Your task to perform on an android device: Open Chrome and go to the settings page Image 0: 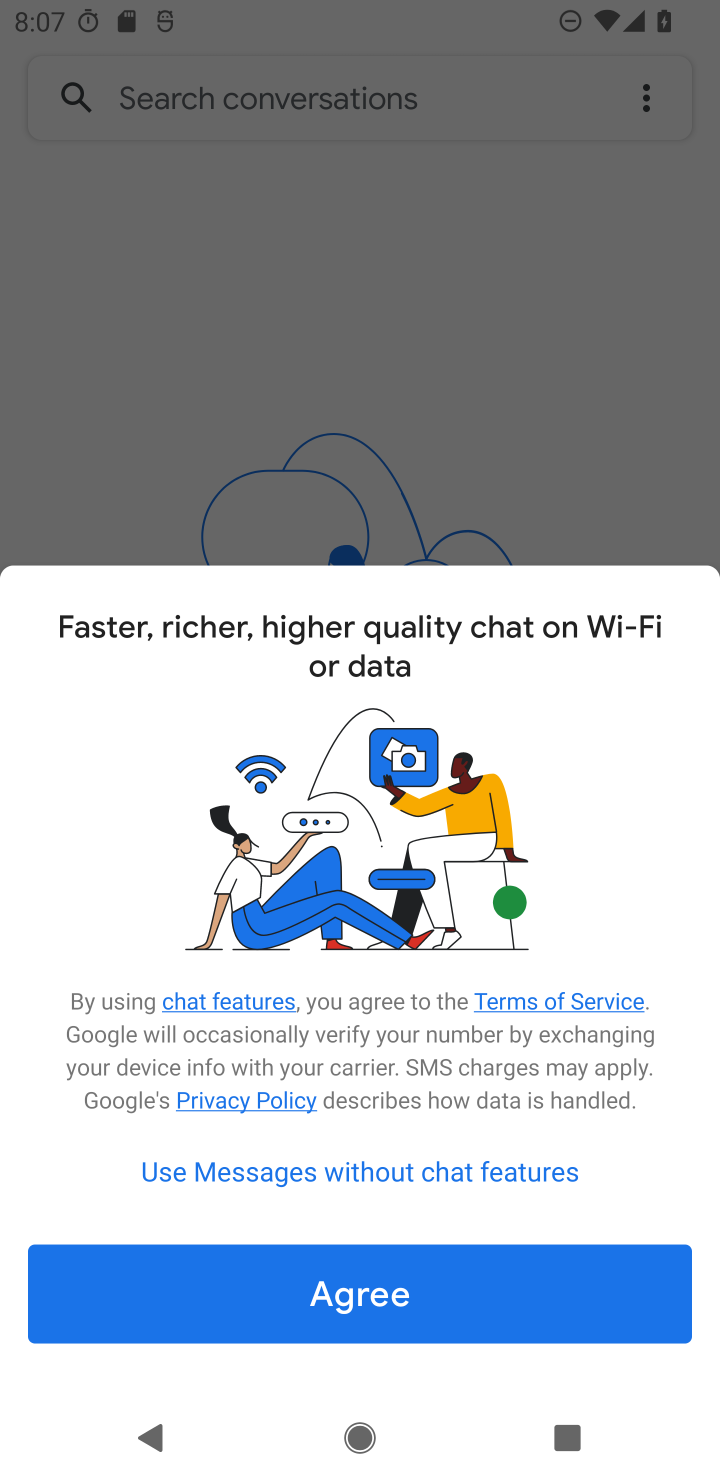
Step 0: press home button
Your task to perform on an android device: Open Chrome and go to the settings page Image 1: 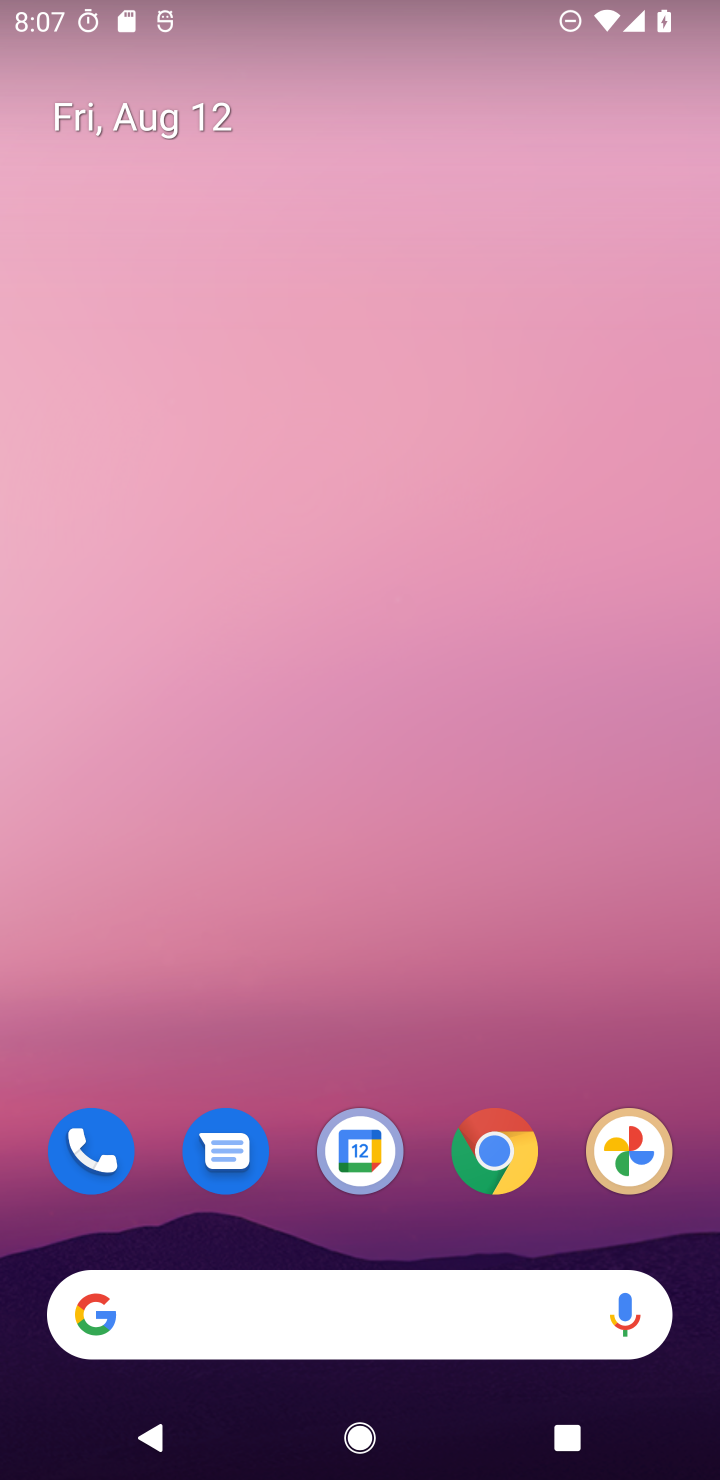
Step 1: drag from (519, 755) to (516, 0)
Your task to perform on an android device: Open Chrome and go to the settings page Image 2: 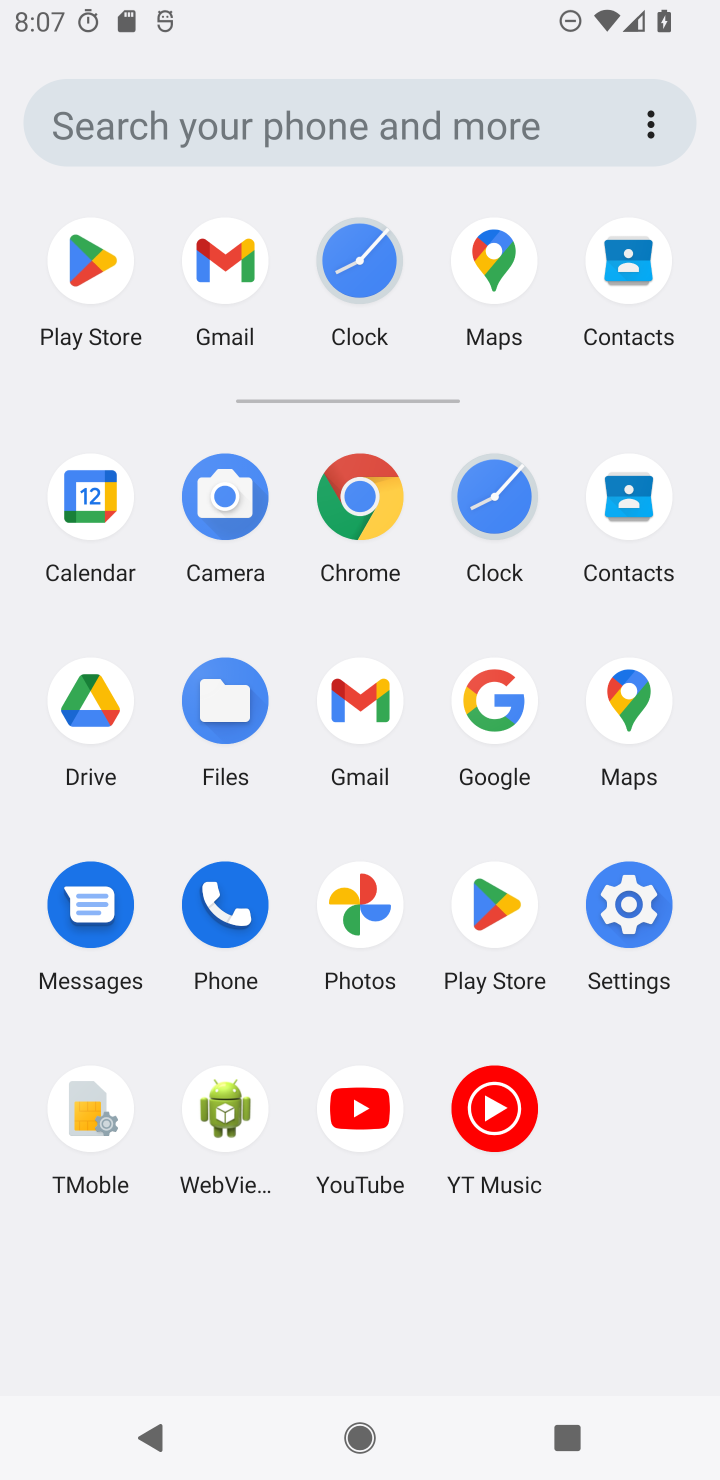
Step 2: click (360, 490)
Your task to perform on an android device: Open Chrome and go to the settings page Image 3: 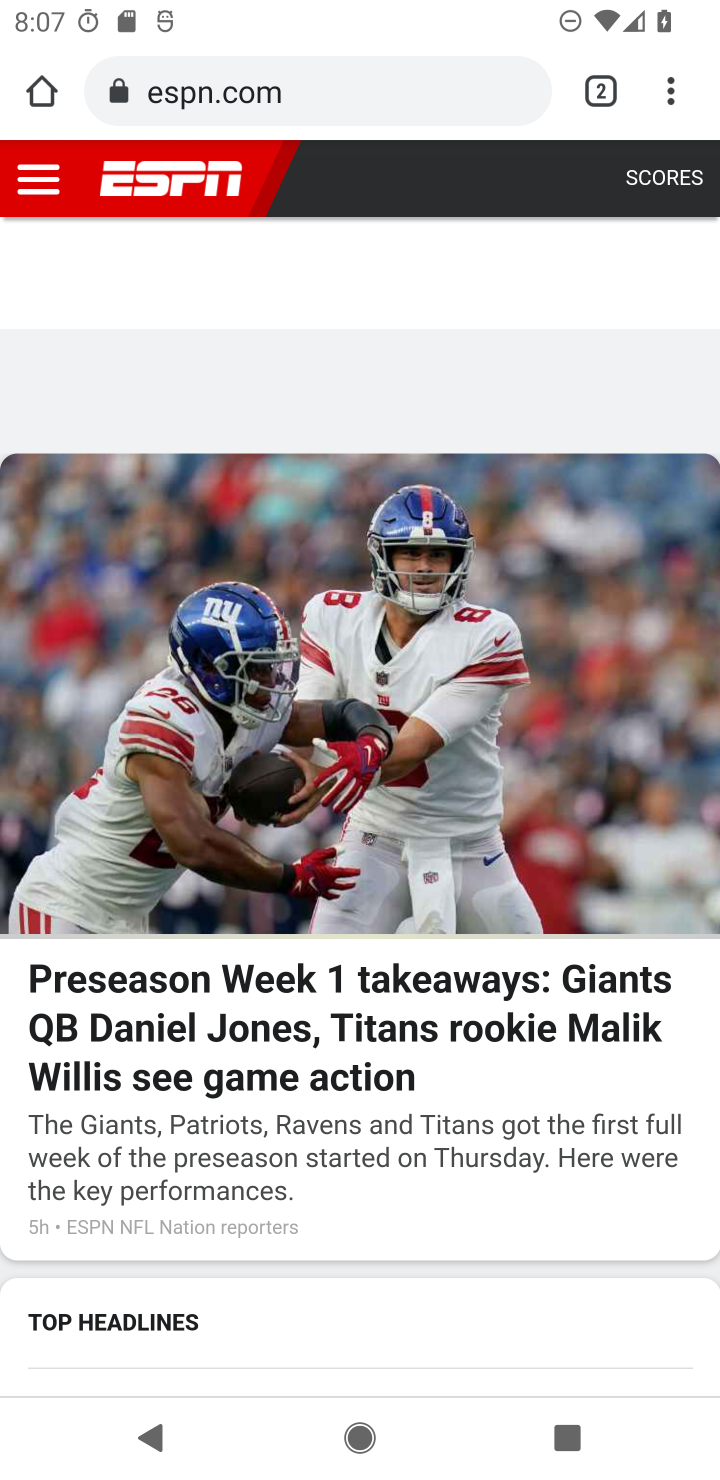
Step 3: task complete